Your task to perform on an android device: see creations saved in the google photos Image 0: 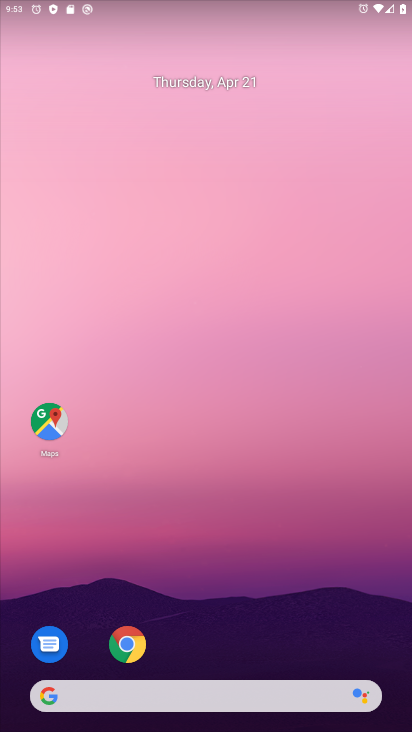
Step 0: drag from (223, 294) to (235, 1)
Your task to perform on an android device: see creations saved in the google photos Image 1: 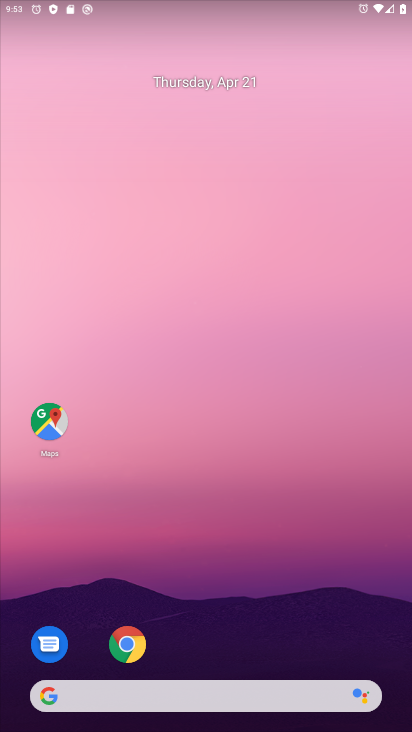
Step 1: drag from (206, 594) to (256, 75)
Your task to perform on an android device: see creations saved in the google photos Image 2: 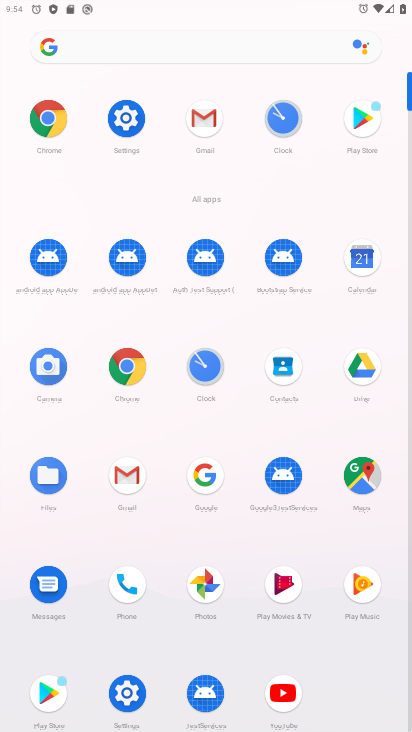
Step 2: click (207, 589)
Your task to perform on an android device: see creations saved in the google photos Image 3: 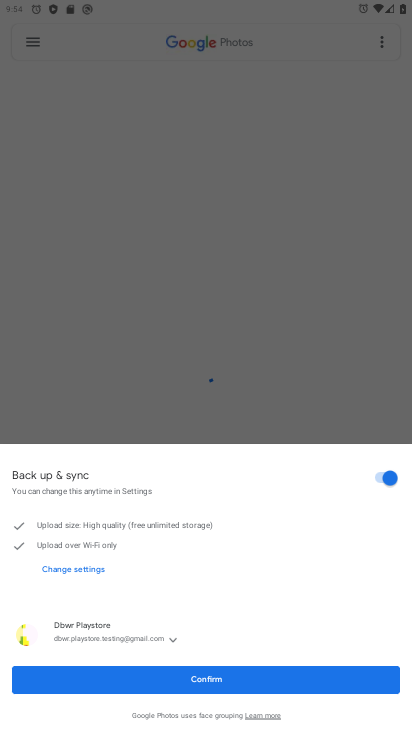
Step 3: click (218, 679)
Your task to perform on an android device: see creations saved in the google photos Image 4: 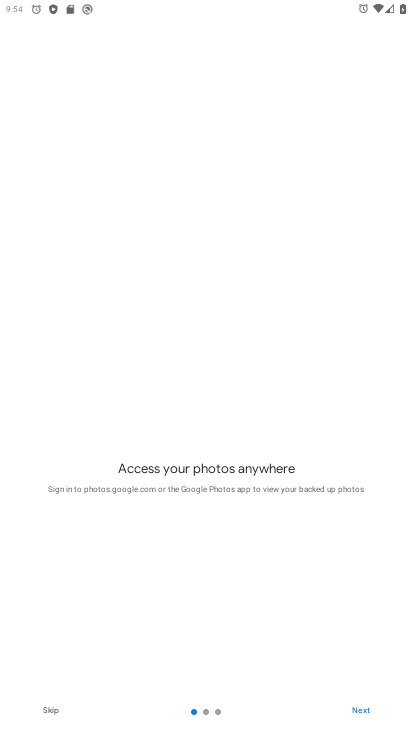
Step 4: click (358, 709)
Your task to perform on an android device: see creations saved in the google photos Image 5: 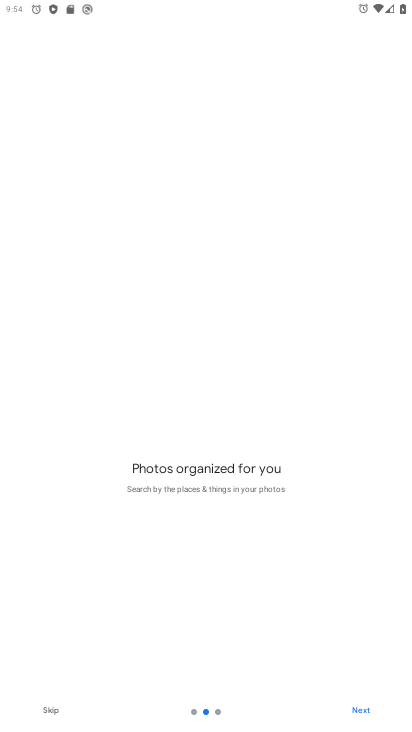
Step 5: click (358, 709)
Your task to perform on an android device: see creations saved in the google photos Image 6: 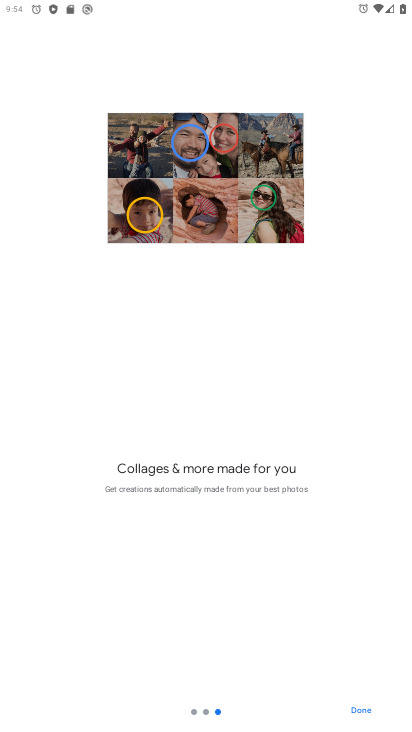
Step 6: click (358, 709)
Your task to perform on an android device: see creations saved in the google photos Image 7: 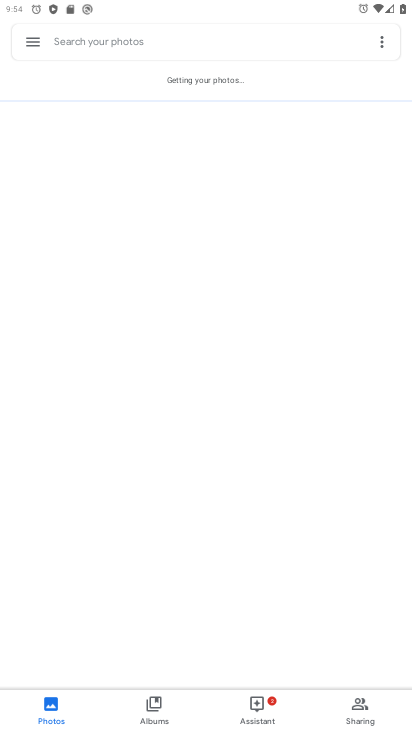
Step 7: click (223, 39)
Your task to perform on an android device: see creations saved in the google photos Image 8: 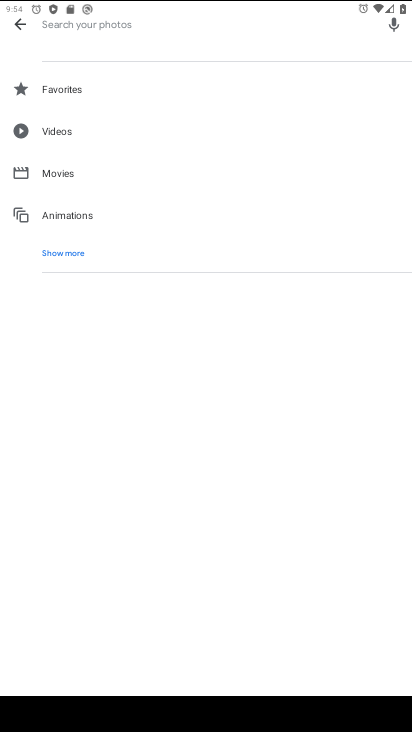
Step 8: click (65, 255)
Your task to perform on an android device: see creations saved in the google photos Image 9: 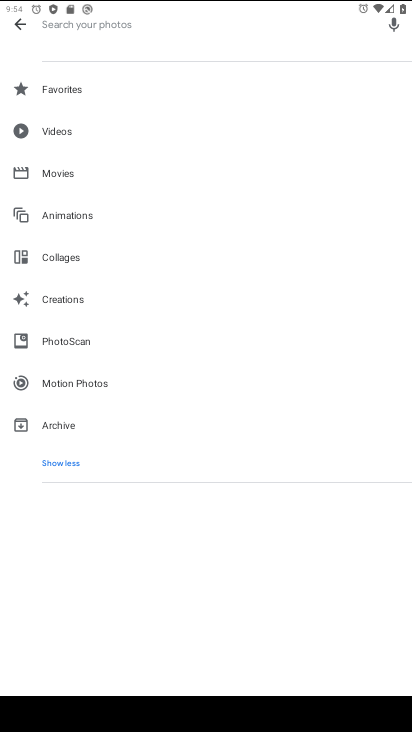
Step 9: click (64, 306)
Your task to perform on an android device: see creations saved in the google photos Image 10: 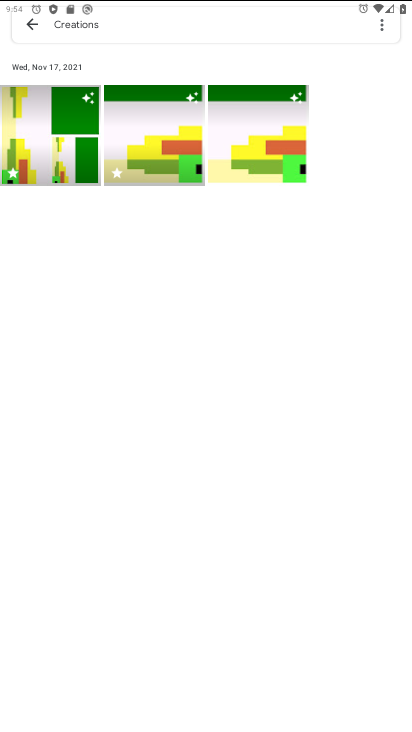
Step 10: task complete